Your task to perform on an android device: Do I have any events this weekend? Image 0: 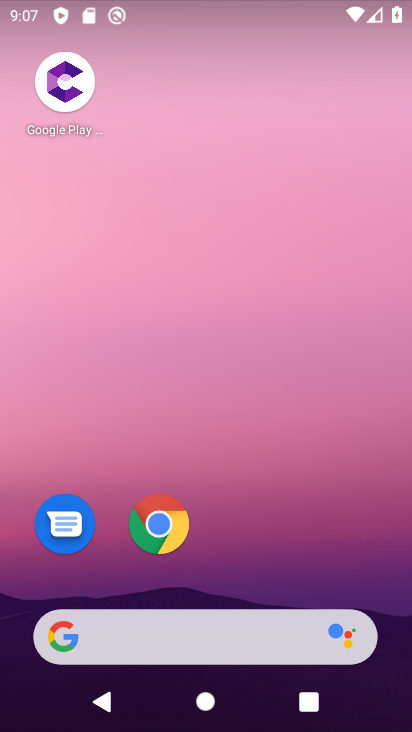
Step 0: drag from (205, 569) to (259, 167)
Your task to perform on an android device: Do I have any events this weekend? Image 1: 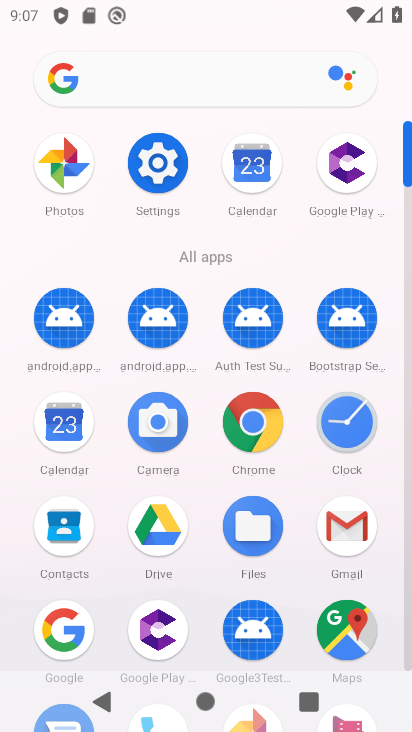
Step 1: click (265, 178)
Your task to perform on an android device: Do I have any events this weekend? Image 2: 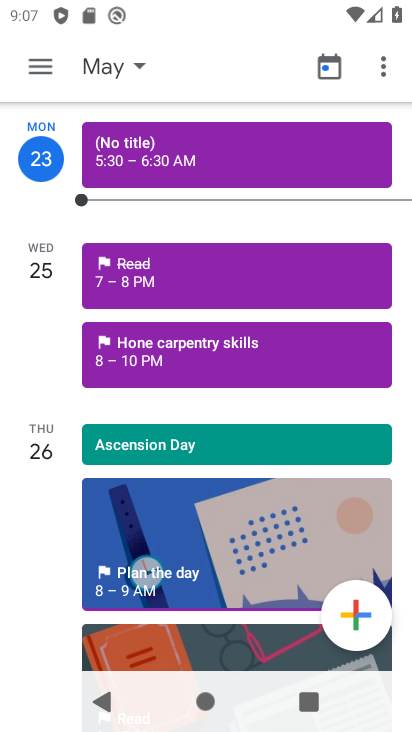
Step 2: click (144, 61)
Your task to perform on an android device: Do I have any events this weekend? Image 3: 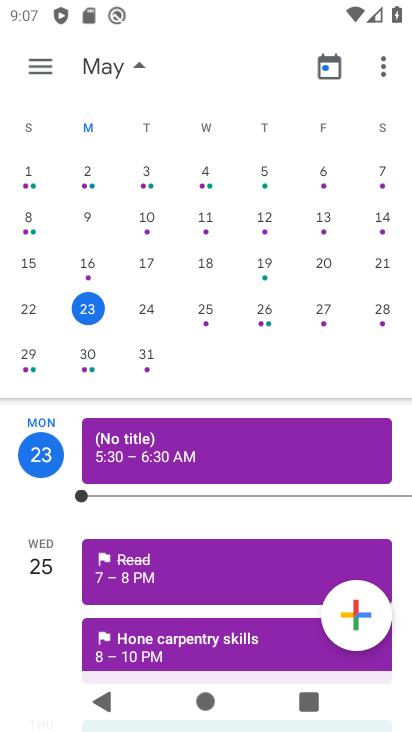
Step 3: click (386, 315)
Your task to perform on an android device: Do I have any events this weekend? Image 4: 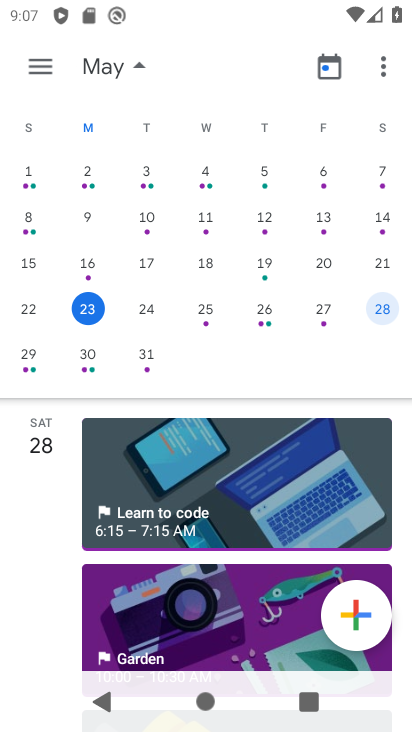
Step 4: click (379, 296)
Your task to perform on an android device: Do I have any events this weekend? Image 5: 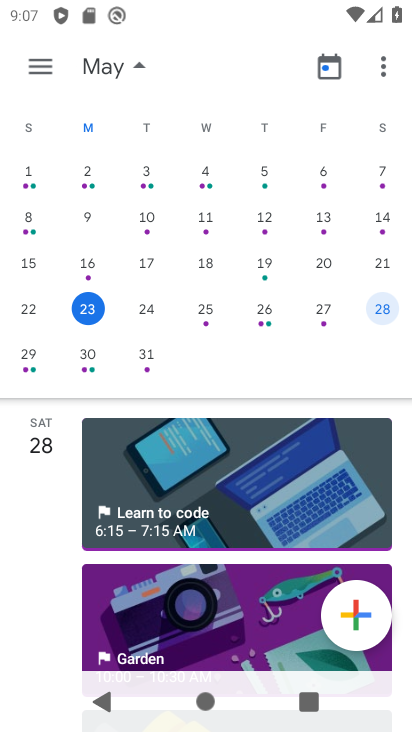
Step 5: task complete